Your task to perform on an android device: Open CNN.com Image 0: 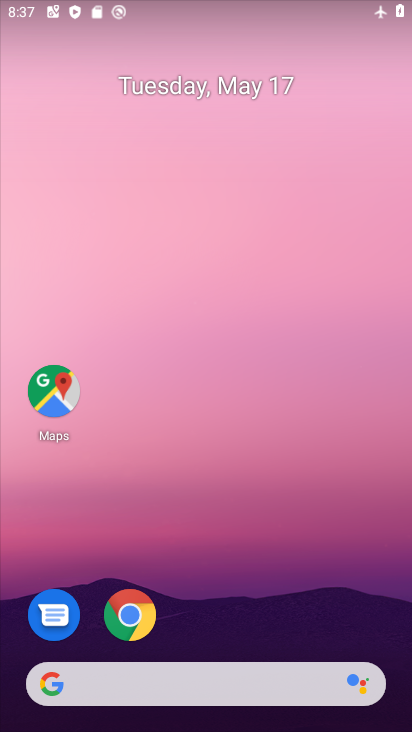
Step 0: click (125, 609)
Your task to perform on an android device: Open CNN.com Image 1: 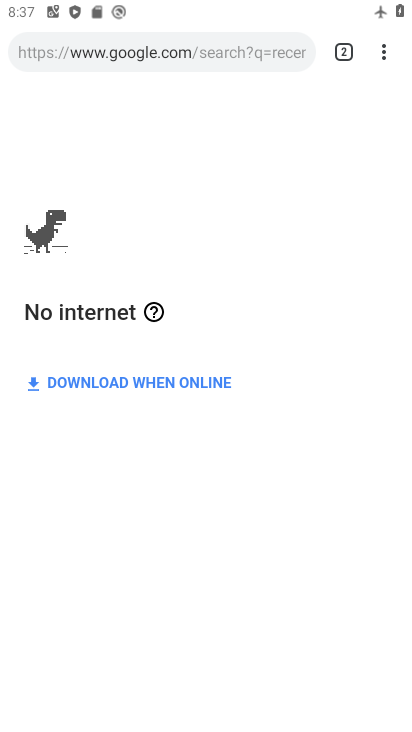
Step 1: click (385, 40)
Your task to perform on an android device: Open CNN.com Image 2: 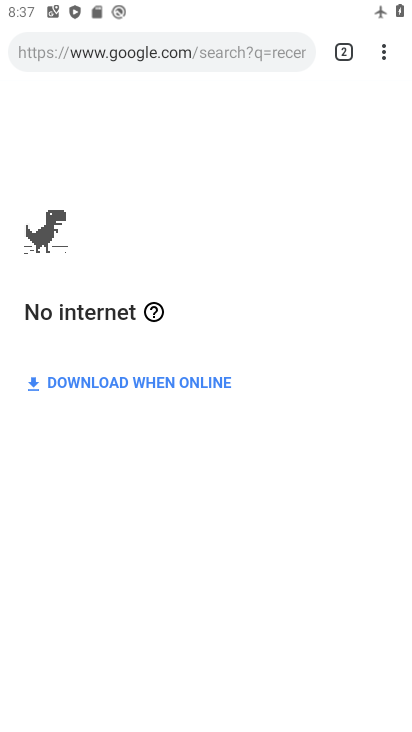
Step 2: click (386, 54)
Your task to perform on an android device: Open CNN.com Image 3: 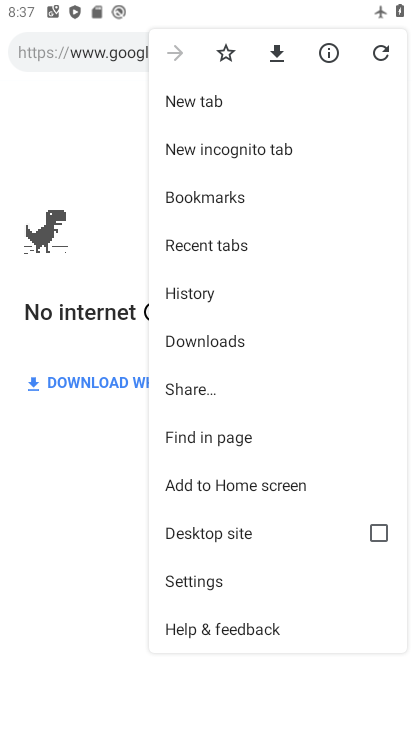
Step 3: click (216, 99)
Your task to perform on an android device: Open CNN.com Image 4: 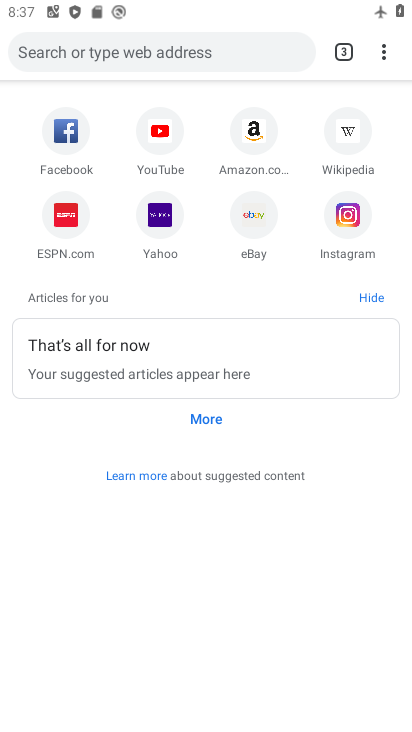
Step 4: click (128, 43)
Your task to perform on an android device: Open CNN.com Image 5: 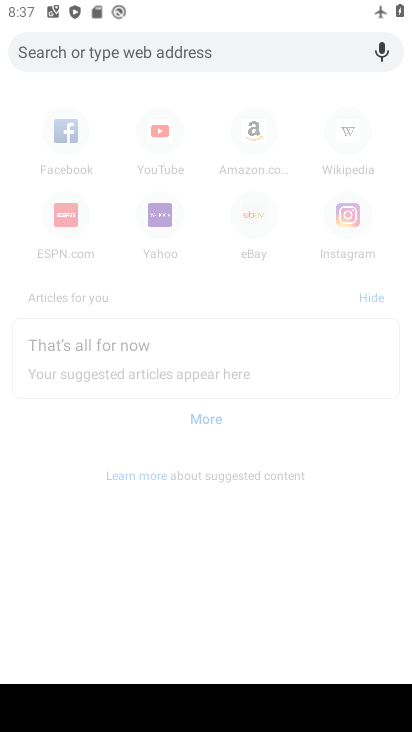
Step 5: type "CNN.com"
Your task to perform on an android device: Open CNN.com Image 6: 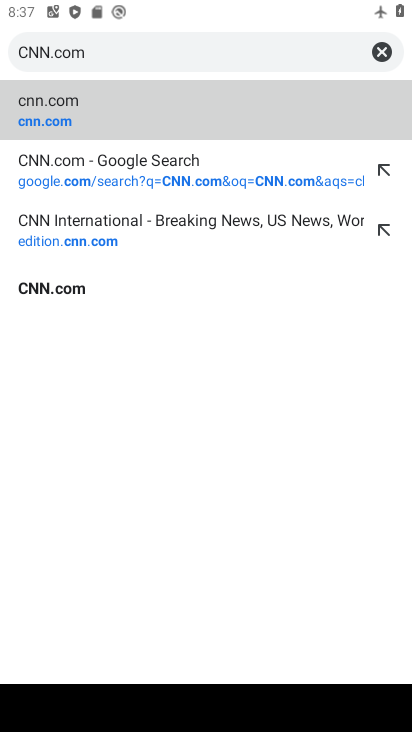
Step 6: click (191, 113)
Your task to perform on an android device: Open CNN.com Image 7: 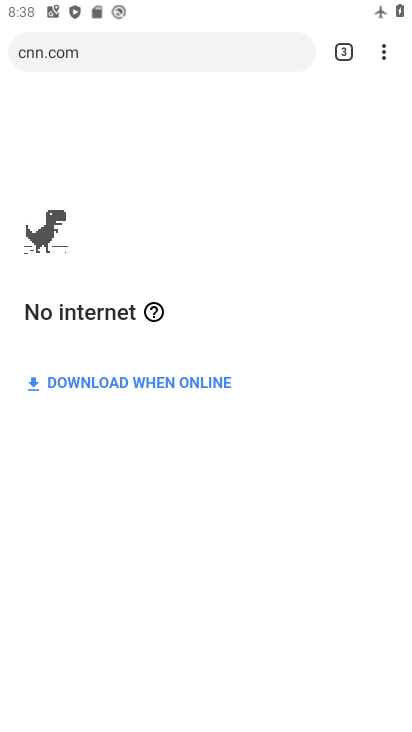
Step 7: task complete